Your task to perform on an android device: Open Maps and search for coffee Image 0: 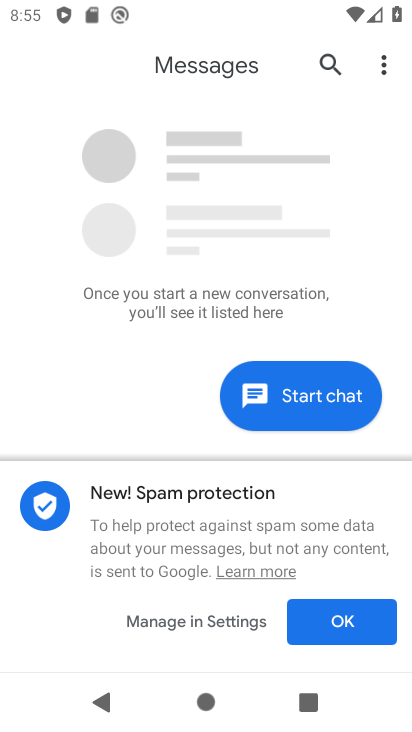
Step 0: press home button
Your task to perform on an android device: Open Maps and search for coffee Image 1: 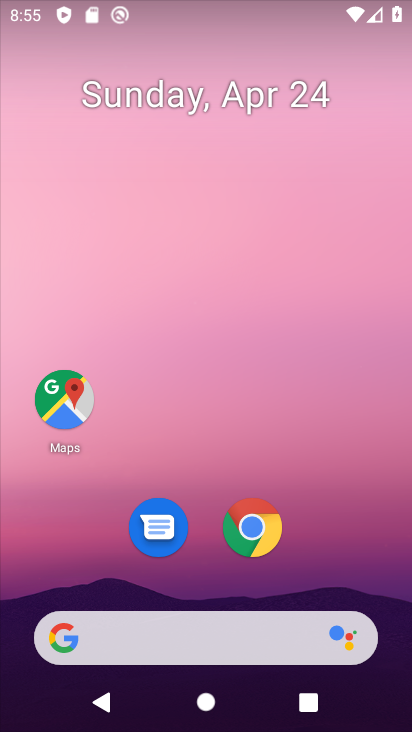
Step 1: drag from (385, 627) to (254, 43)
Your task to perform on an android device: Open Maps and search for coffee Image 2: 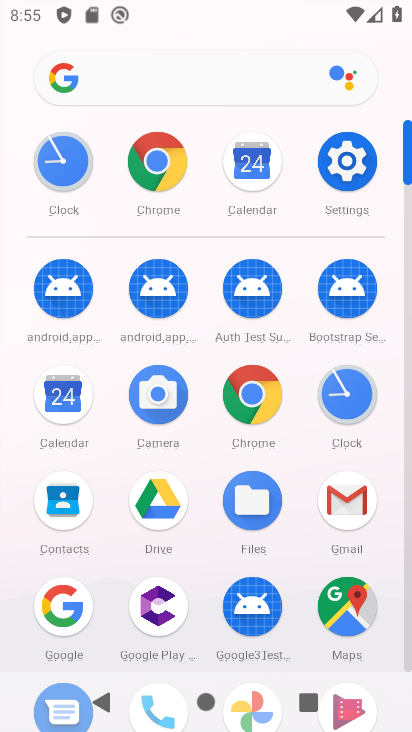
Step 2: click (343, 604)
Your task to perform on an android device: Open Maps and search for coffee Image 3: 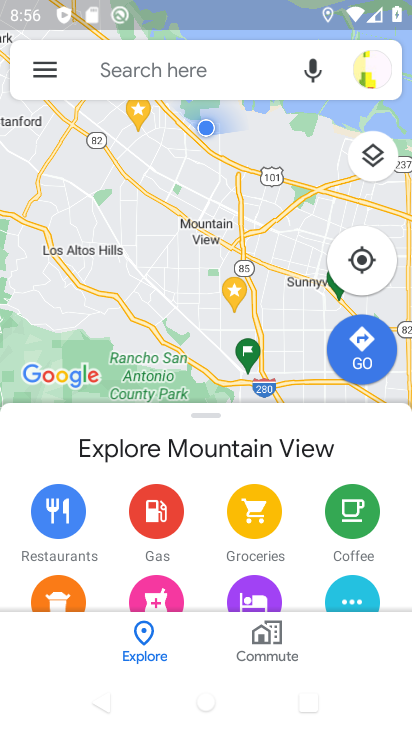
Step 3: click (128, 65)
Your task to perform on an android device: Open Maps and search for coffee Image 4: 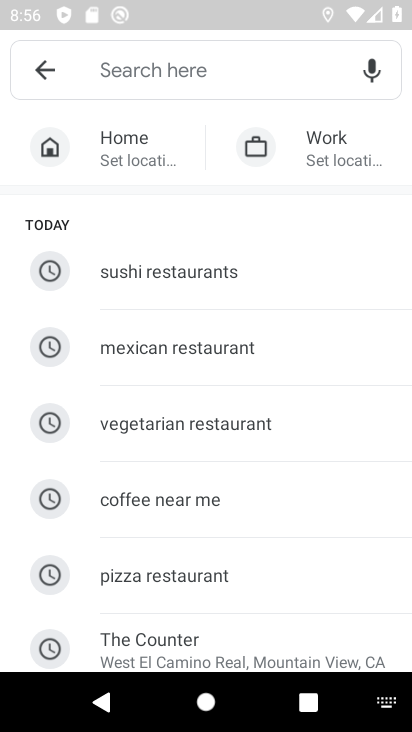
Step 4: click (136, 495)
Your task to perform on an android device: Open Maps and search for coffee Image 5: 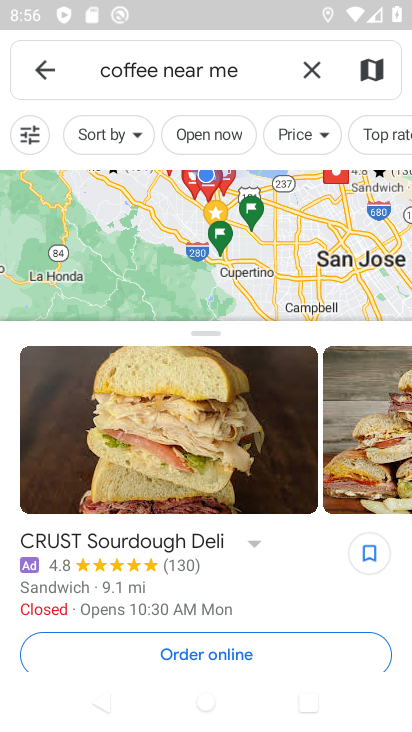
Step 5: task complete